Your task to perform on an android device: Open calendar and show me the fourth week of next month Image 0: 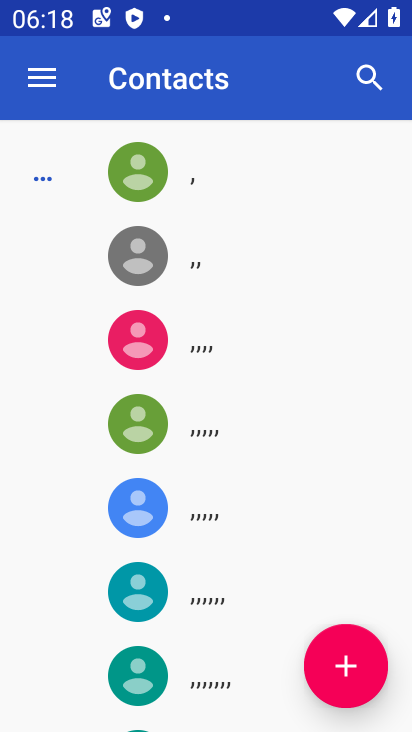
Step 0: press home button
Your task to perform on an android device: Open calendar and show me the fourth week of next month Image 1: 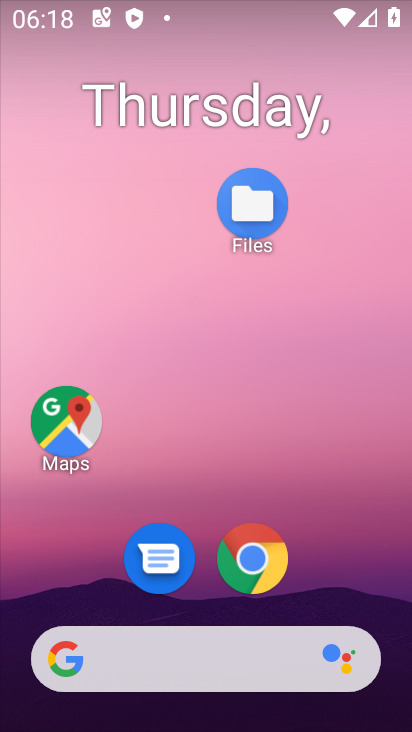
Step 1: drag from (297, 554) to (340, 158)
Your task to perform on an android device: Open calendar and show me the fourth week of next month Image 2: 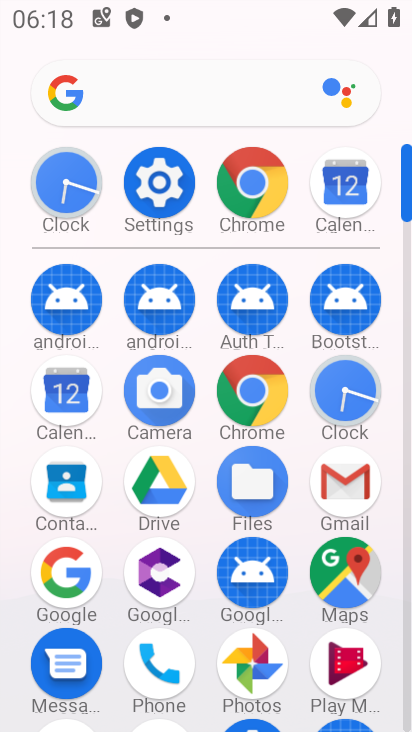
Step 2: click (66, 411)
Your task to perform on an android device: Open calendar and show me the fourth week of next month Image 3: 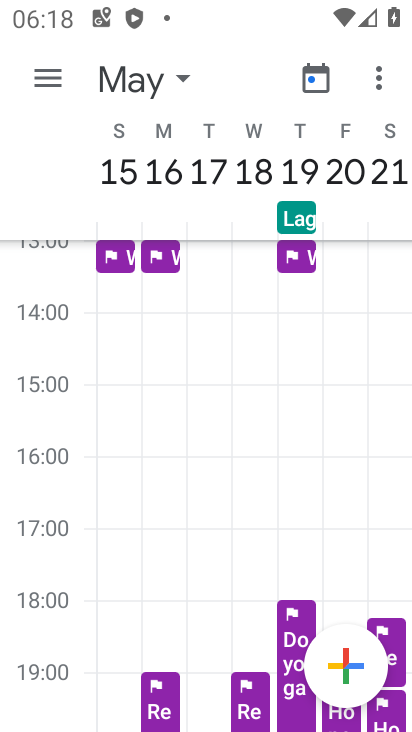
Step 3: click (134, 75)
Your task to perform on an android device: Open calendar and show me the fourth week of next month Image 4: 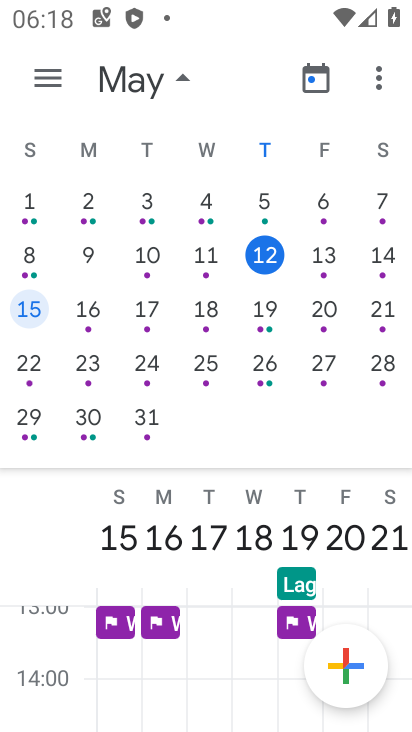
Step 4: drag from (340, 304) to (9, 315)
Your task to perform on an android device: Open calendar and show me the fourth week of next month Image 5: 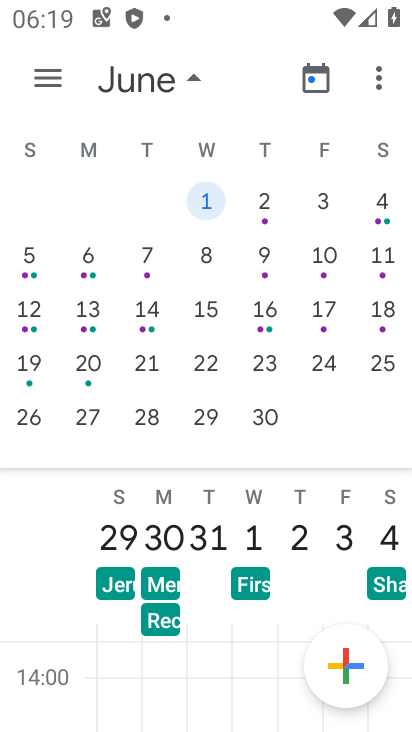
Step 5: click (31, 369)
Your task to perform on an android device: Open calendar and show me the fourth week of next month Image 6: 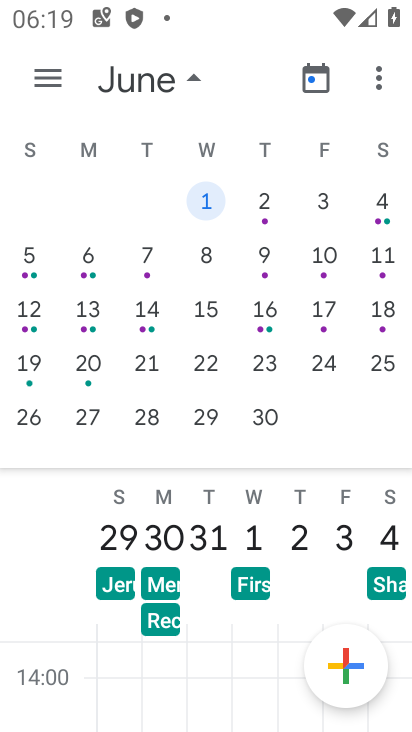
Step 6: click (30, 362)
Your task to perform on an android device: Open calendar and show me the fourth week of next month Image 7: 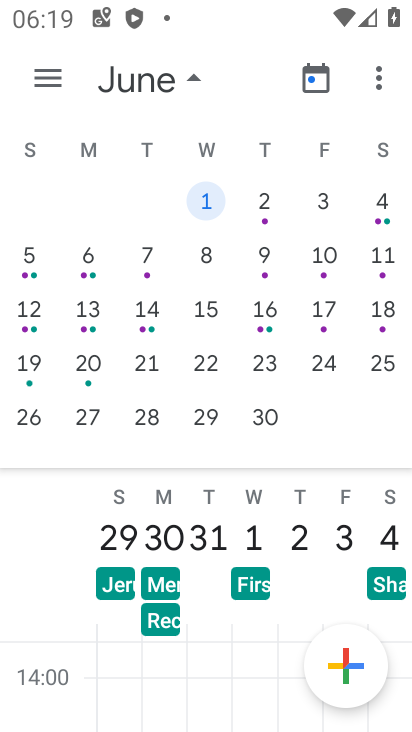
Step 7: click (25, 367)
Your task to perform on an android device: Open calendar and show me the fourth week of next month Image 8: 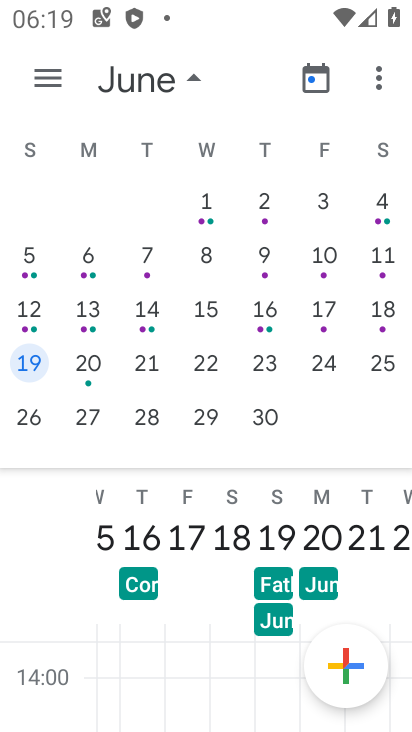
Step 8: click (26, 367)
Your task to perform on an android device: Open calendar and show me the fourth week of next month Image 9: 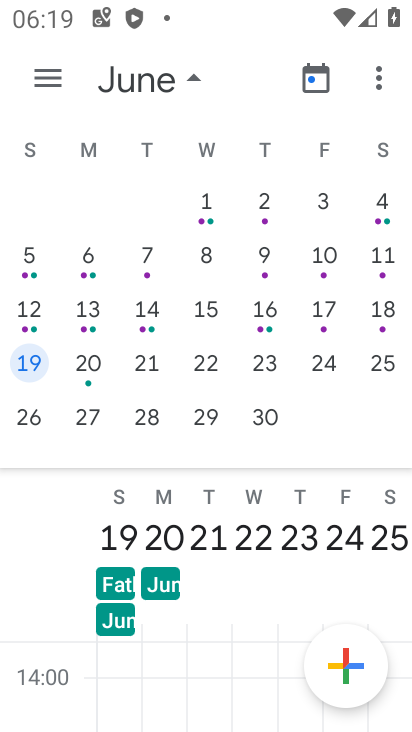
Step 9: task complete